Your task to perform on an android device: choose inbox layout in the gmail app Image 0: 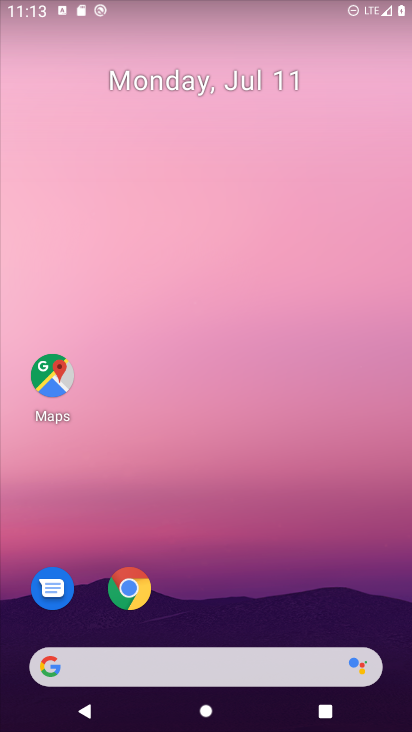
Step 0: drag from (389, 639) to (276, 129)
Your task to perform on an android device: choose inbox layout in the gmail app Image 1: 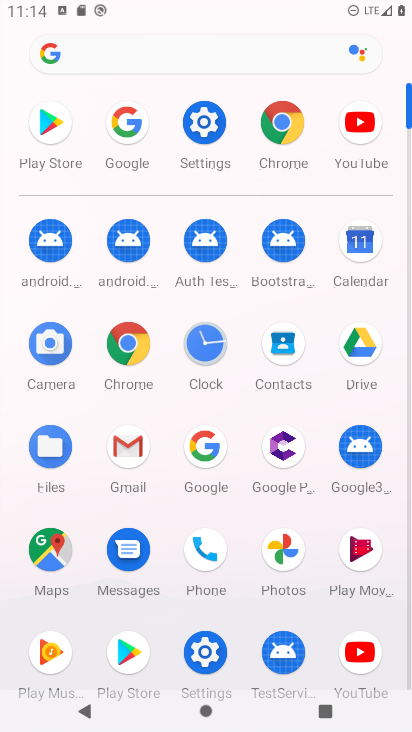
Step 1: click (127, 454)
Your task to perform on an android device: choose inbox layout in the gmail app Image 2: 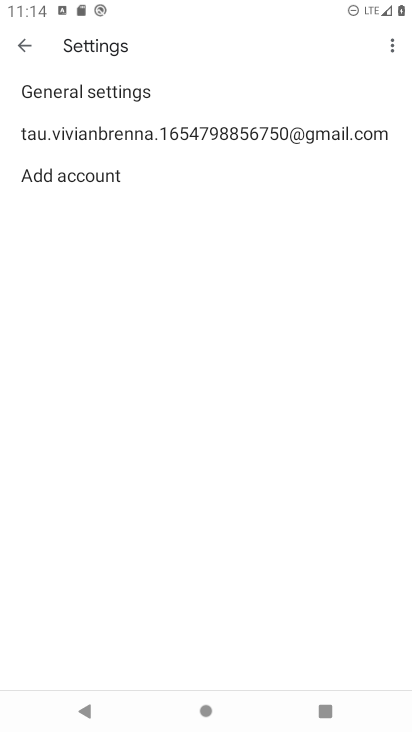
Step 2: click (181, 137)
Your task to perform on an android device: choose inbox layout in the gmail app Image 3: 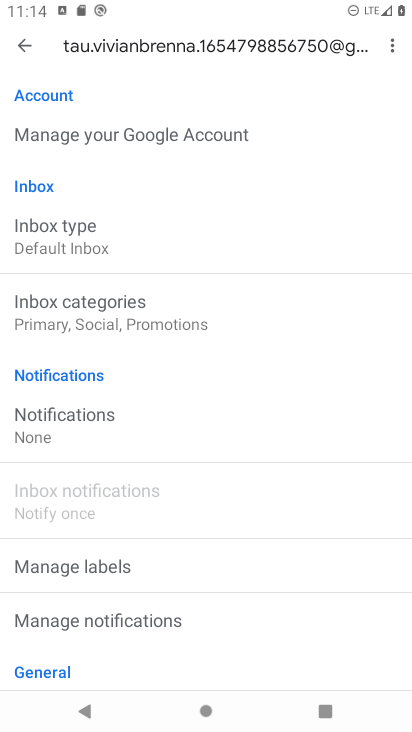
Step 3: click (111, 242)
Your task to perform on an android device: choose inbox layout in the gmail app Image 4: 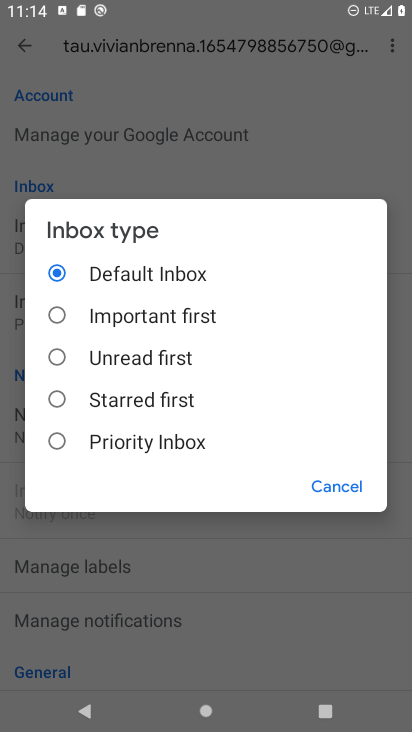
Step 4: click (174, 323)
Your task to perform on an android device: choose inbox layout in the gmail app Image 5: 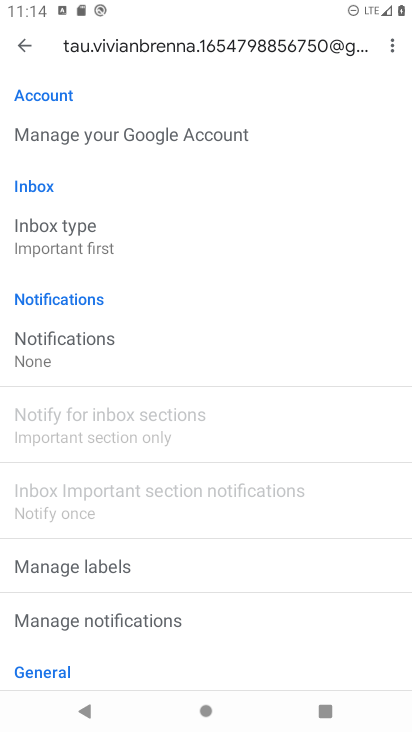
Step 5: task complete